Your task to perform on an android device: turn off improve location accuracy Image 0: 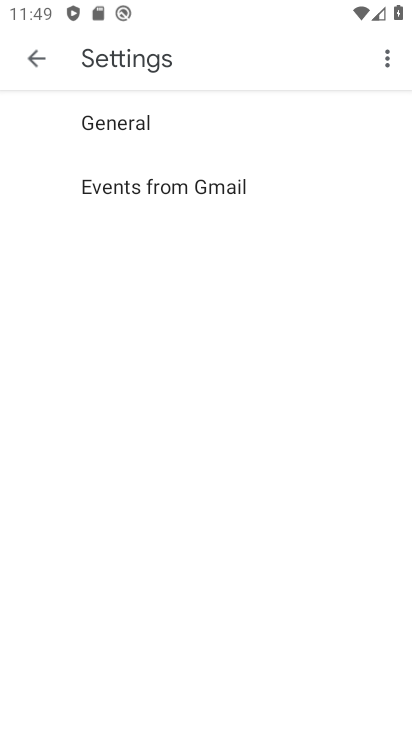
Step 0: press home button
Your task to perform on an android device: turn off improve location accuracy Image 1: 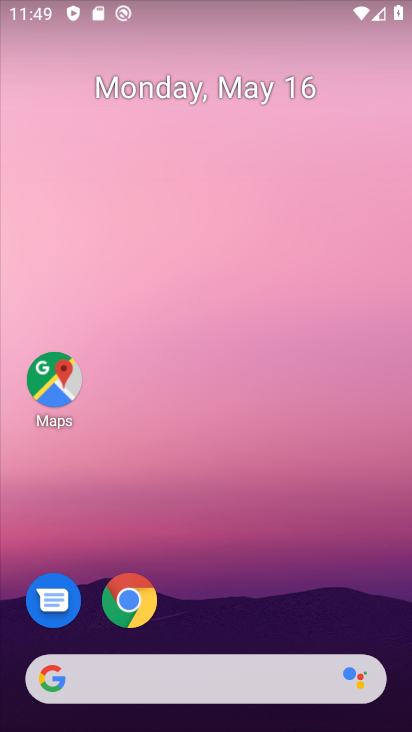
Step 1: drag from (201, 630) to (325, 69)
Your task to perform on an android device: turn off improve location accuracy Image 2: 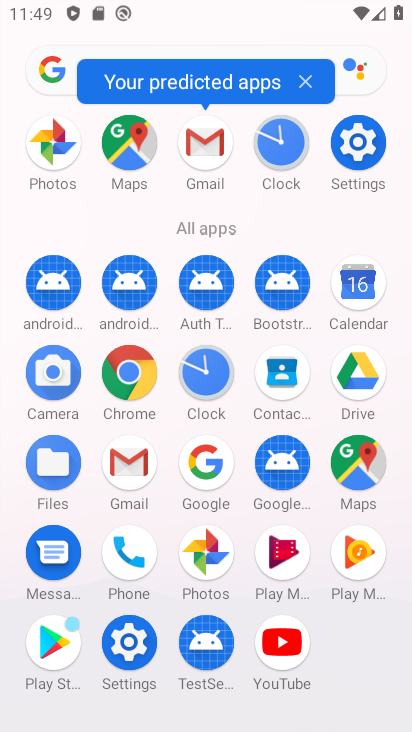
Step 2: click (117, 650)
Your task to perform on an android device: turn off improve location accuracy Image 3: 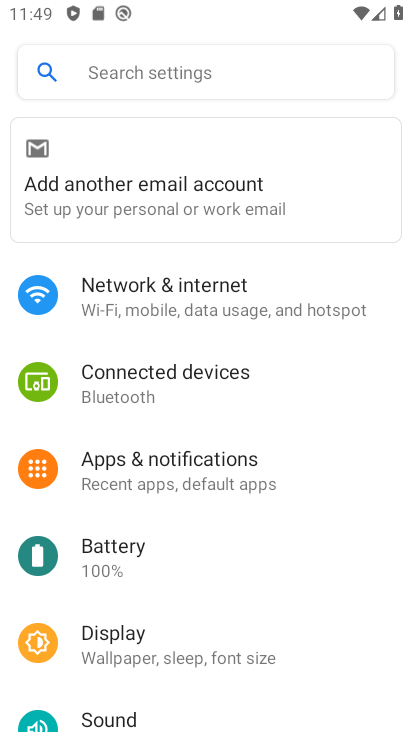
Step 3: drag from (194, 637) to (313, 293)
Your task to perform on an android device: turn off improve location accuracy Image 4: 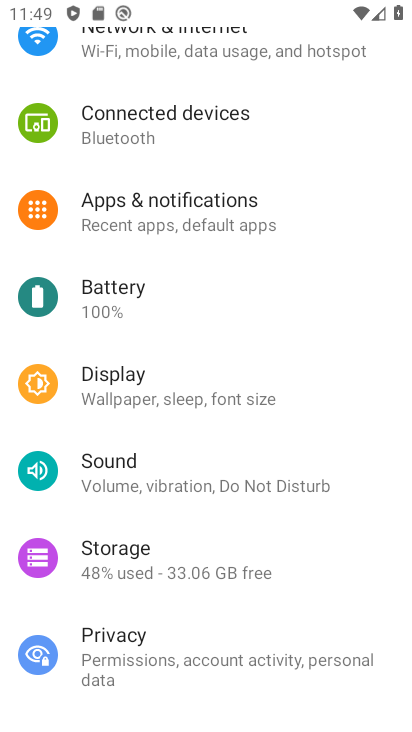
Step 4: drag from (110, 562) to (177, 343)
Your task to perform on an android device: turn off improve location accuracy Image 5: 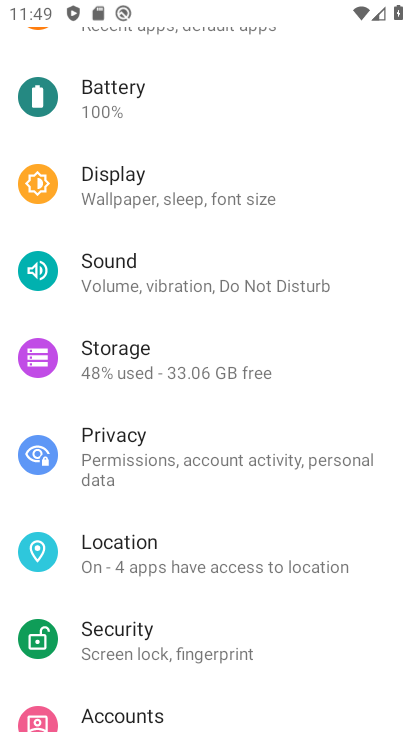
Step 5: click (111, 545)
Your task to perform on an android device: turn off improve location accuracy Image 6: 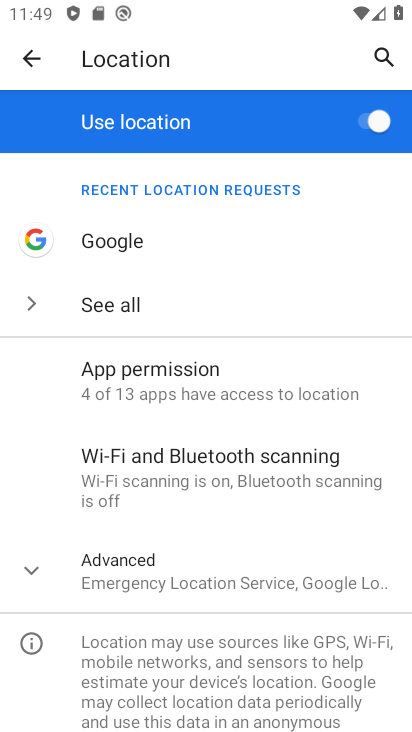
Step 6: click (174, 562)
Your task to perform on an android device: turn off improve location accuracy Image 7: 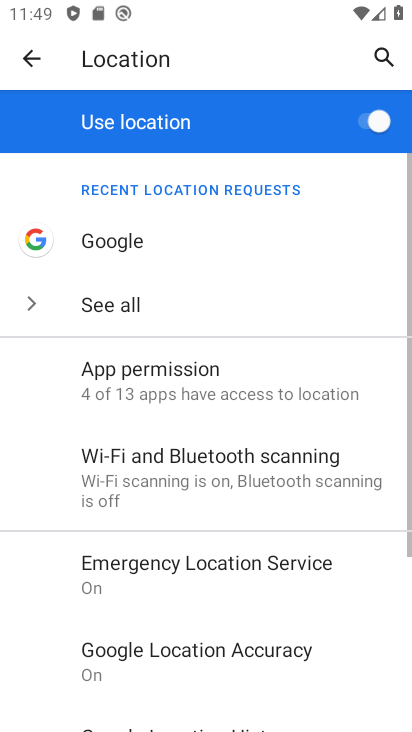
Step 7: drag from (159, 665) to (256, 321)
Your task to perform on an android device: turn off improve location accuracy Image 8: 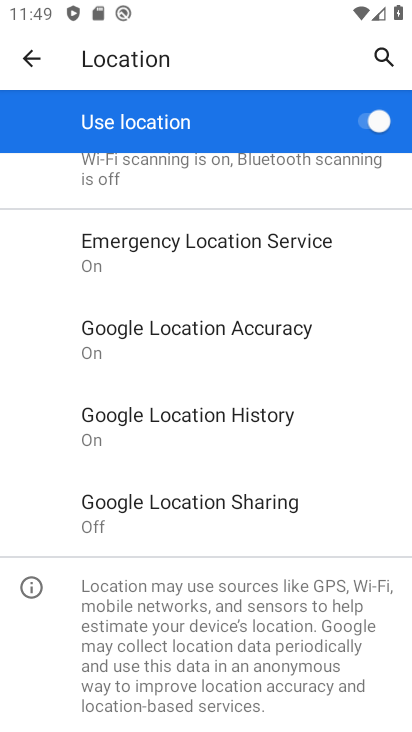
Step 8: click (257, 343)
Your task to perform on an android device: turn off improve location accuracy Image 9: 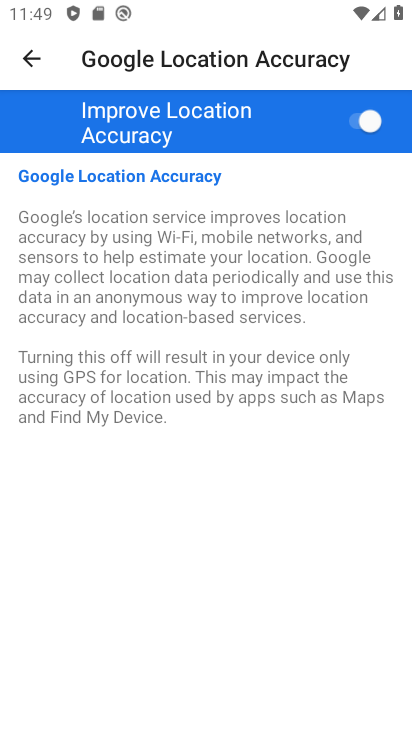
Step 9: click (353, 110)
Your task to perform on an android device: turn off improve location accuracy Image 10: 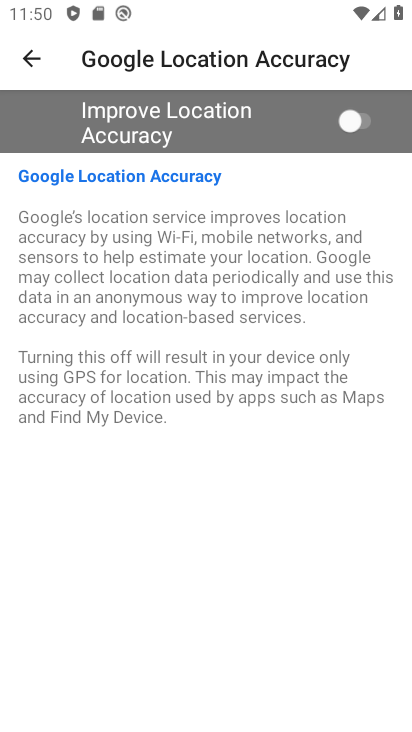
Step 10: task complete